Your task to perform on an android device: Open calendar and show me the fourth week of next month Image 0: 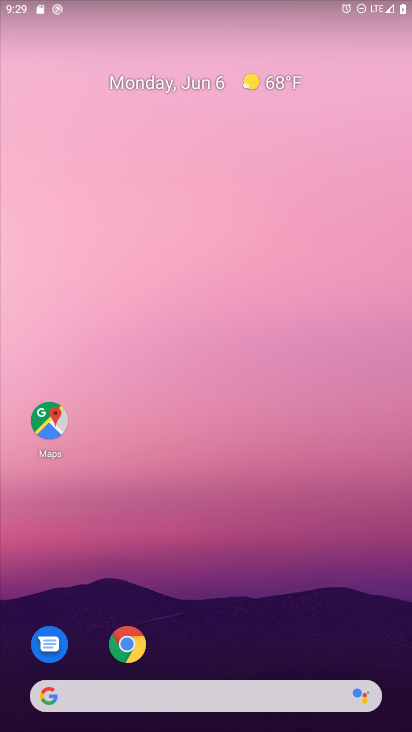
Step 0: drag from (300, 709) to (255, 143)
Your task to perform on an android device: Open calendar and show me the fourth week of next month Image 1: 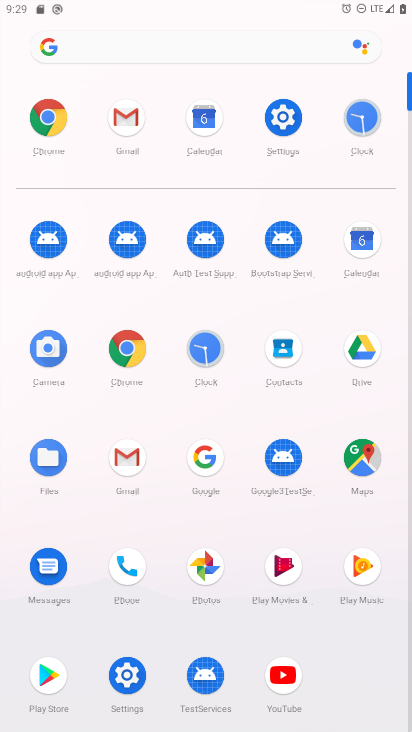
Step 1: click (348, 236)
Your task to perform on an android device: Open calendar and show me the fourth week of next month Image 2: 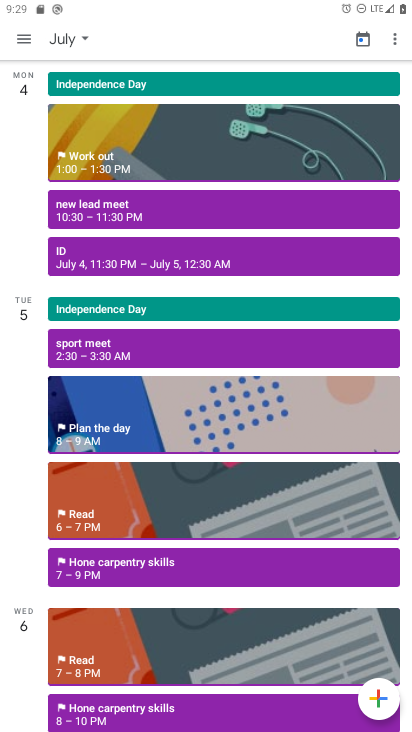
Step 2: click (24, 41)
Your task to perform on an android device: Open calendar and show me the fourth week of next month Image 3: 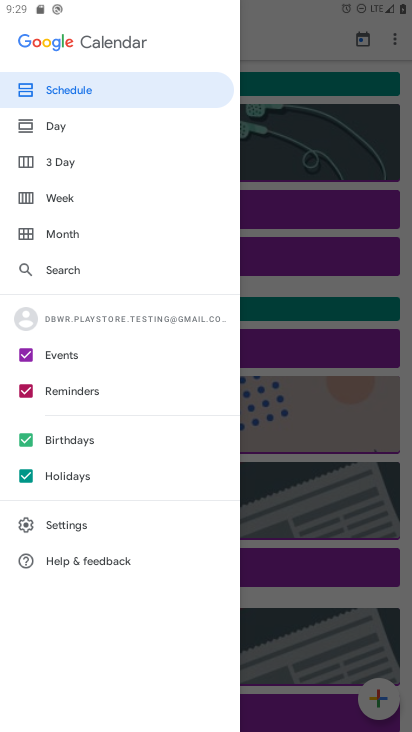
Step 3: click (47, 235)
Your task to perform on an android device: Open calendar and show me the fourth week of next month Image 4: 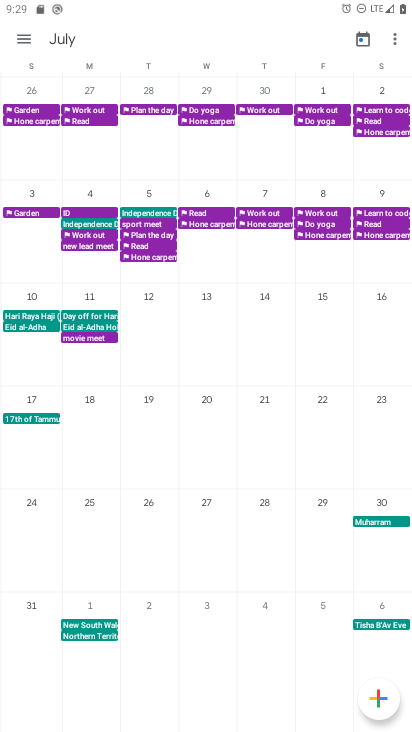
Step 4: click (91, 506)
Your task to perform on an android device: Open calendar and show me the fourth week of next month Image 5: 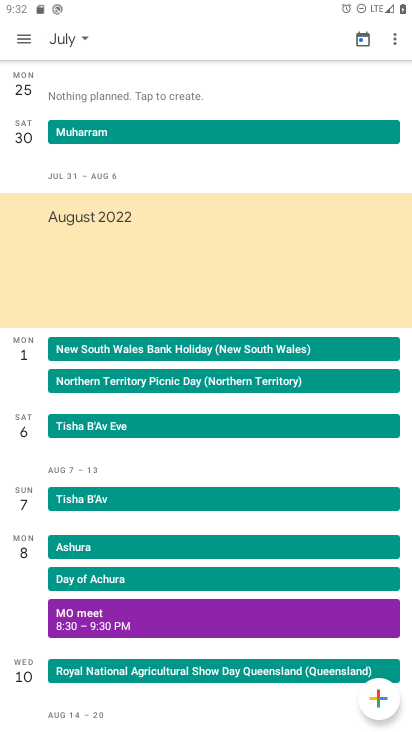
Step 5: task complete